Your task to perform on an android device: change the clock display to analog Image 0: 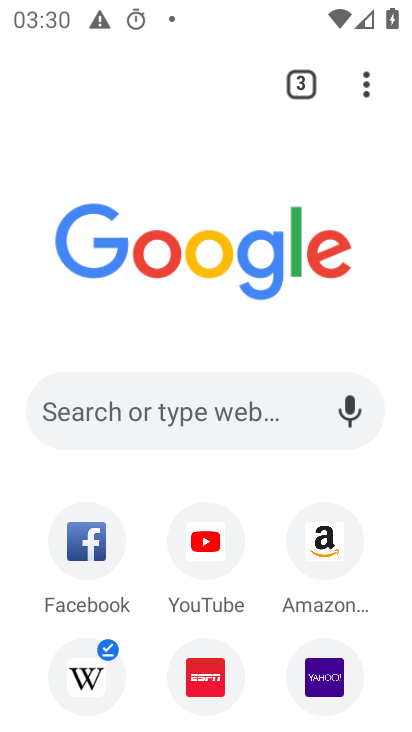
Step 0: press home button
Your task to perform on an android device: change the clock display to analog Image 1: 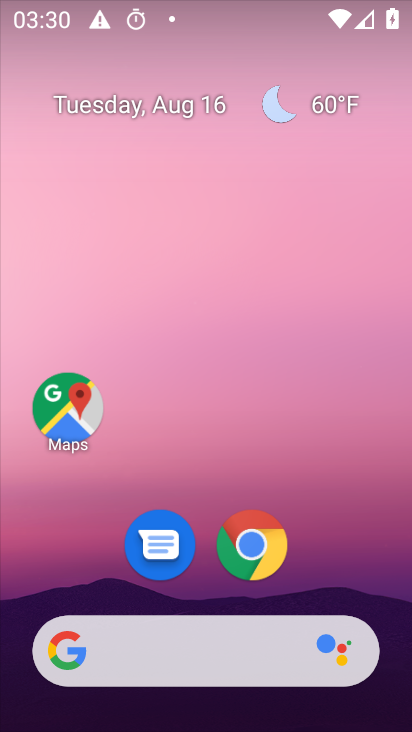
Step 1: drag from (164, 570) to (165, 190)
Your task to perform on an android device: change the clock display to analog Image 2: 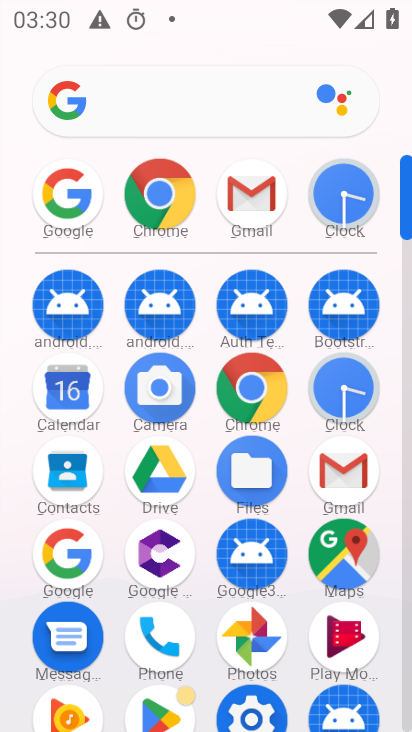
Step 2: click (334, 385)
Your task to perform on an android device: change the clock display to analog Image 3: 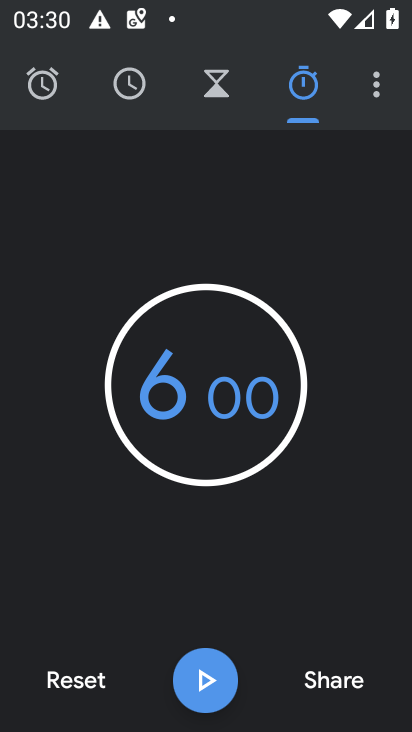
Step 3: click (376, 78)
Your task to perform on an android device: change the clock display to analog Image 4: 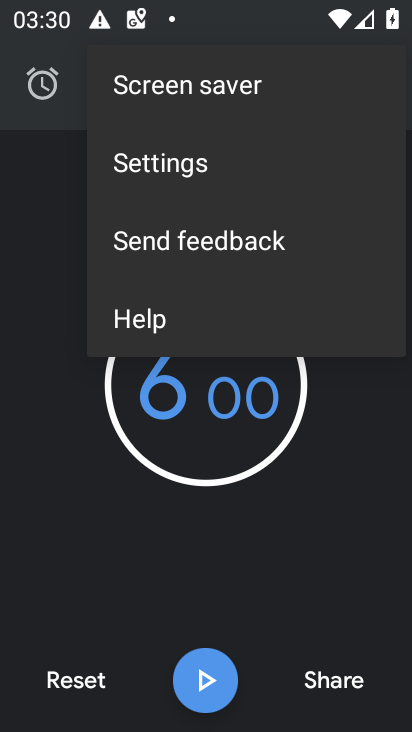
Step 4: click (138, 150)
Your task to perform on an android device: change the clock display to analog Image 5: 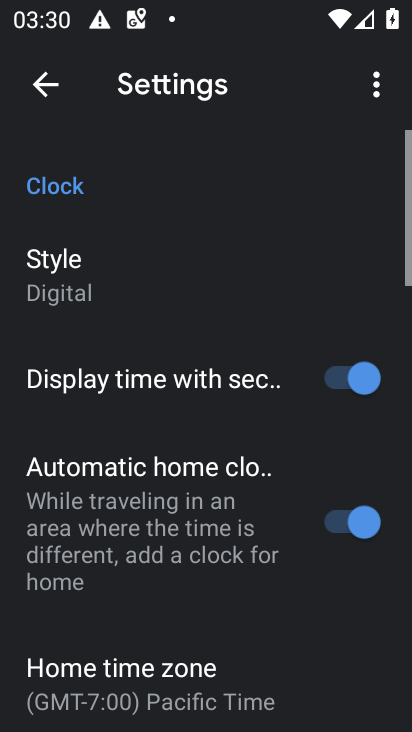
Step 5: click (57, 280)
Your task to perform on an android device: change the clock display to analog Image 6: 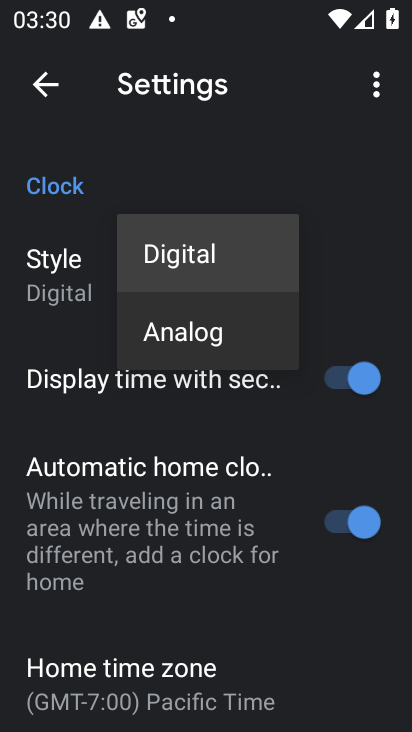
Step 6: click (176, 332)
Your task to perform on an android device: change the clock display to analog Image 7: 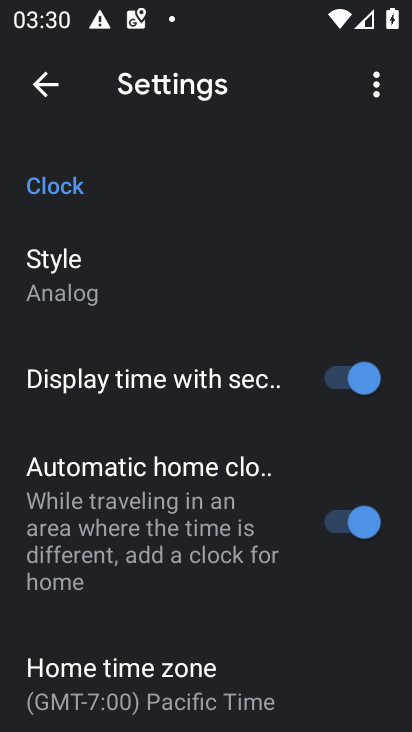
Step 7: task complete